Your task to perform on an android device: turn off sleep mode Image 0: 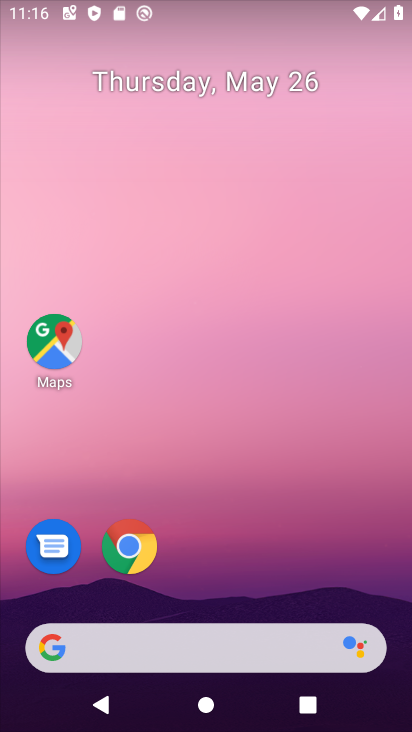
Step 0: drag from (223, 559) to (239, 93)
Your task to perform on an android device: turn off sleep mode Image 1: 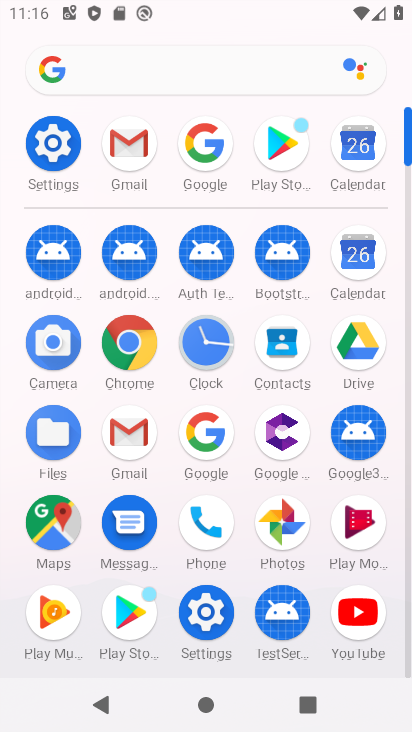
Step 1: click (58, 142)
Your task to perform on an android device: turn off sleep mode Image 2: 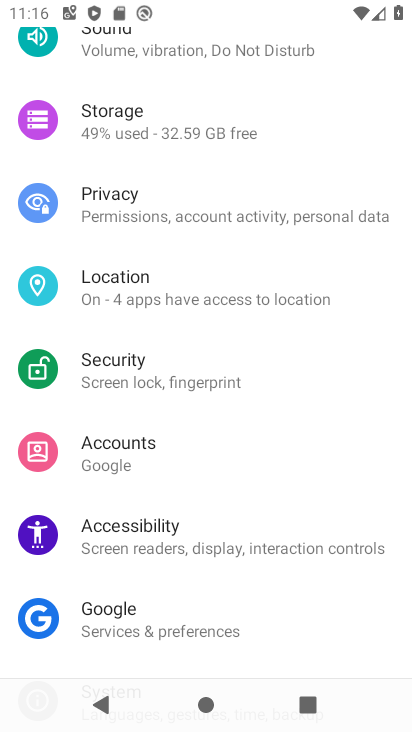
Step 2: drag from (217, 99) to (247, 316)
Your task to perform on an android device: turn off sleep mode Image 3: 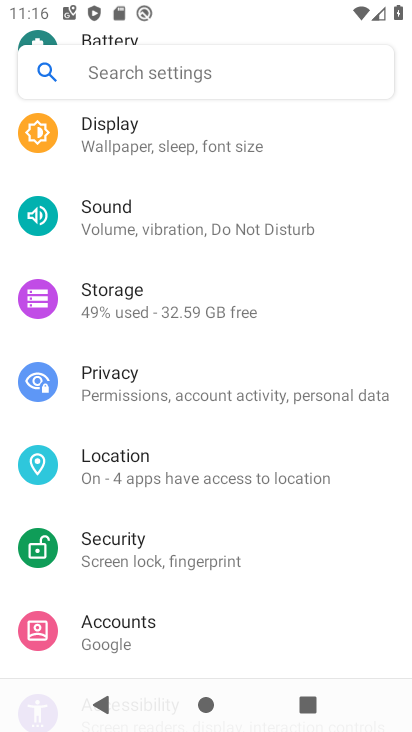
Step 3: click (133, 146)
Your task to perform on an android device: turn off sleep mode Image 4: 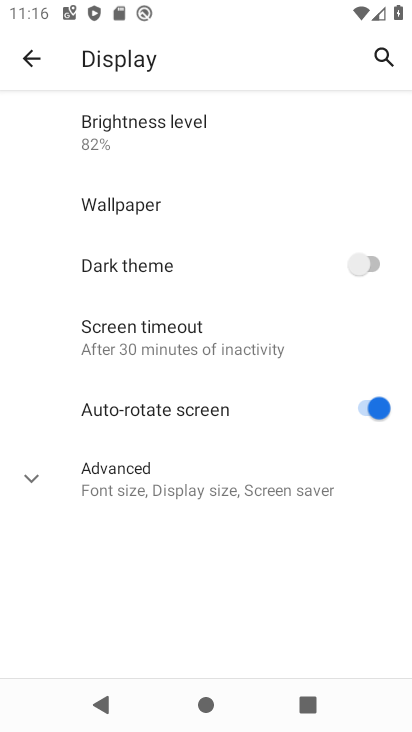
Step 4: click (155, 363)
Your task to perform on an android device: turn off sleep mode Image 5: 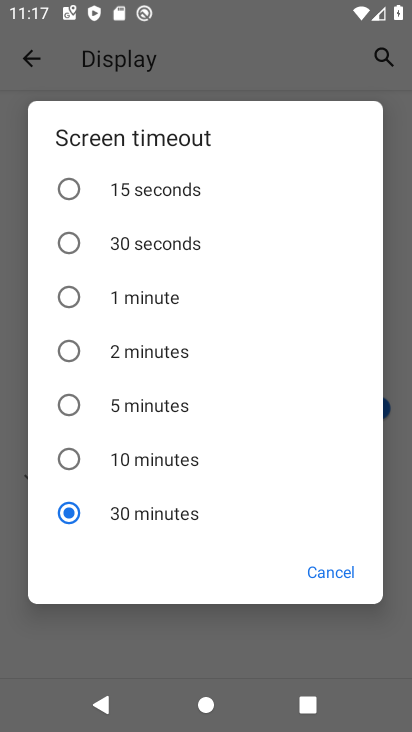
Step 5: task complete